Your task to perform on an android device: Is it going to rain tomorrow? Image 0: 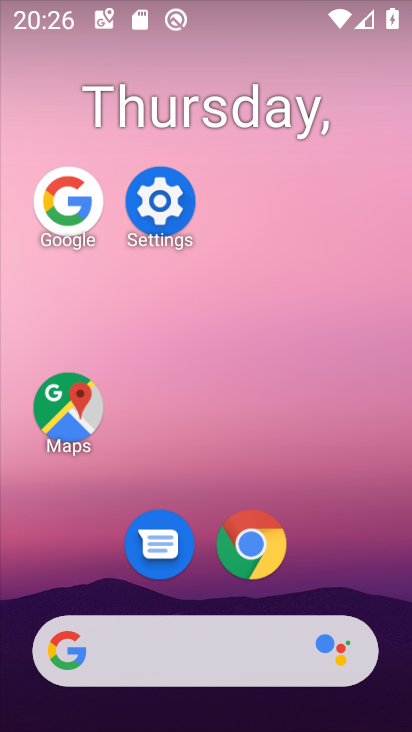
Step 0: drag from (238, 703) to (245, 130)
Your task to perform on an android device: Is it going to rain tomorrow? Image 1: 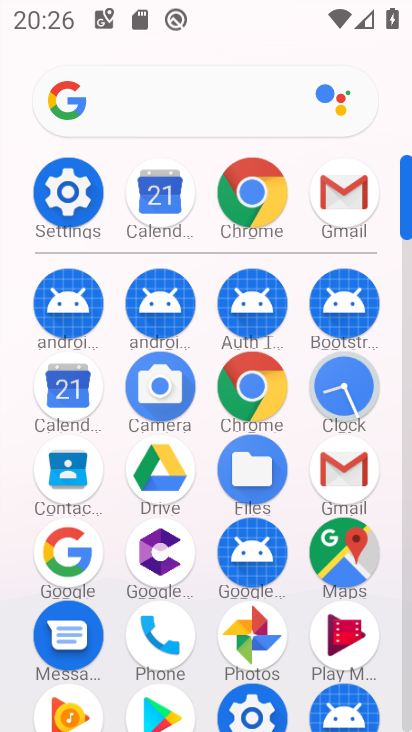
Step 1: click (145, 91)
Your task to perform on an android device: Is it going to rain tomorrow? Image 2: 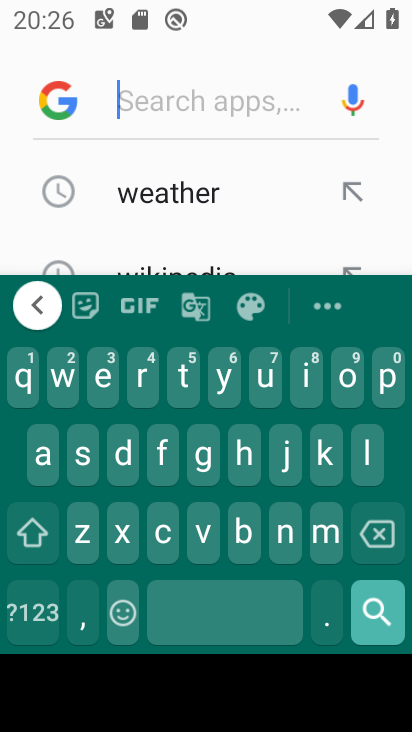
Step 2: click (177, 190)
Your task to perform on an android device: Is it going to rain tomorrow? Image 3: 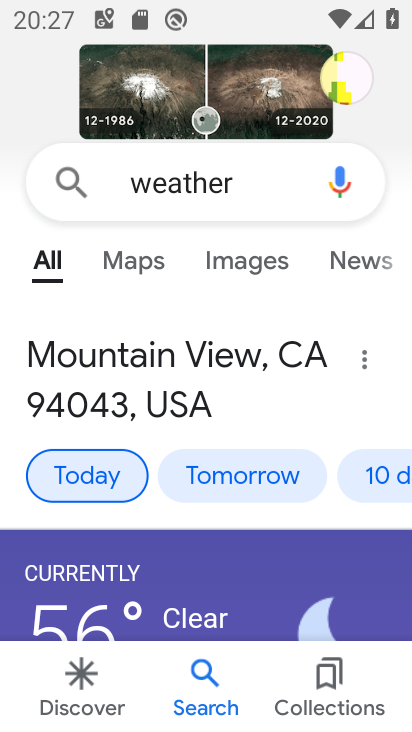
Step 3: click (229, 479)
Your task to perform on an android device: Is it going to rain tomorrow? Image 4: 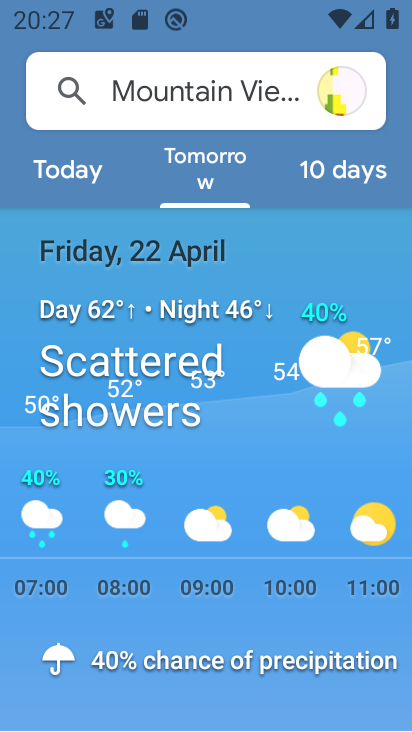
Step 4: task complete